Your task to perform on an android device: Add razer naga to the cart on bestbuy, then select checkout. Image 0: 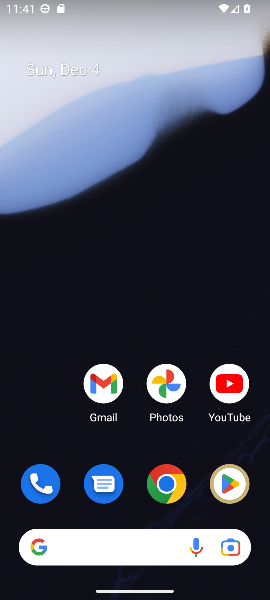
Step 0: click (166, 487)
Your task to perform on an android device: Add razer naga to the cart on bestbuy, then select checkout. Image 1: 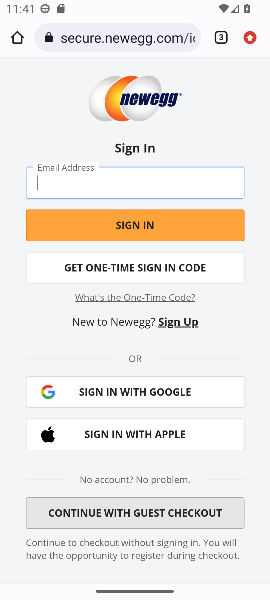
Step 1: click (118, 38)
Your task to perform on an android device: Add razer naga to the cart on bestbuy, then select checkout. Image 2: 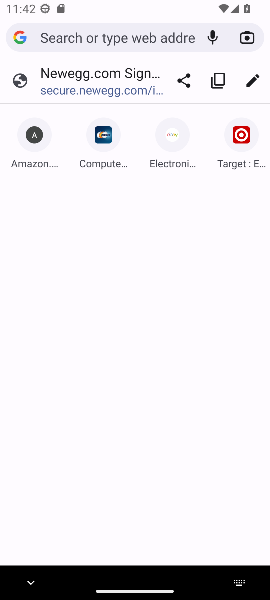
Step 2: type "bestbuy.com"
Your task to perform on an android device: Add razer naga to the cart on bestbuy, then select checkout. Image 3: 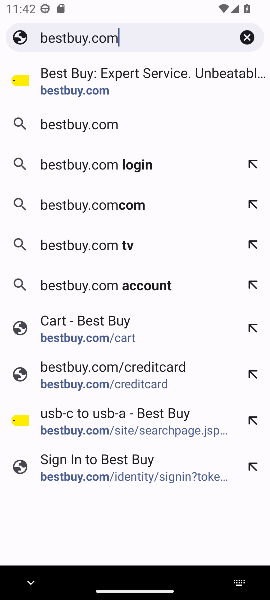
Step 3: click (60, 83)
Your task to perform on an android device: Add razer naga to the cart on bestbuy, then select checkout. Image 4: 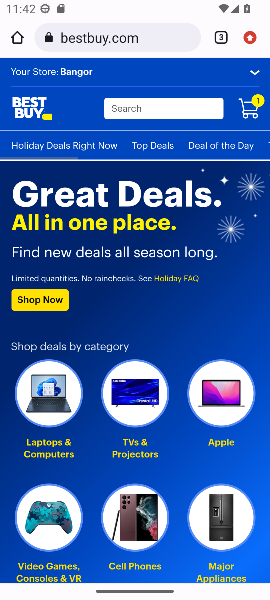
Step 4: click (128, 110)
Your task to perform on an android device: Add razer naga to the cart on bestbuy, then select checkout. Image 5: 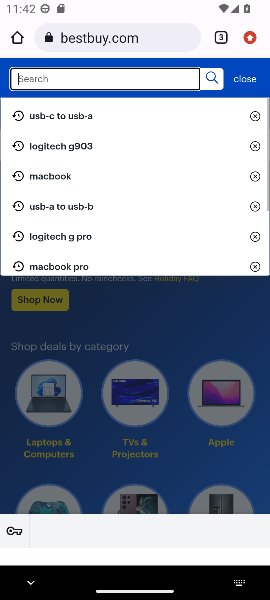
Step 5: type "razer naga"
Your task to perform on an android device: Add razer naga to the cart on bestbuy, then select checkout. Image 6: 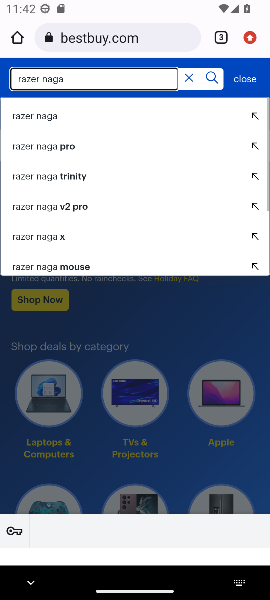
Step 6: click (35, 113)
Your task to perform on an android device: Add razer naga to the cart on bestbuy, then select checkout. Image 7: 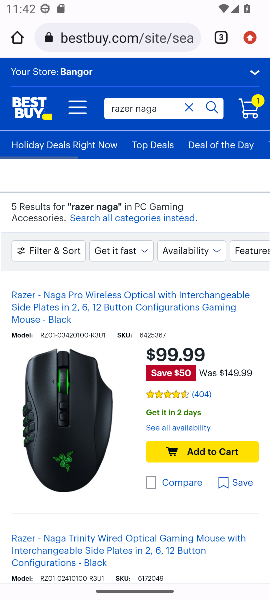
Step 7: drag from (151, 349) to (151, 247)
Your task to perform on an android device: Add razer naga to the cart on bestbuy, then select checkout. Image 8: 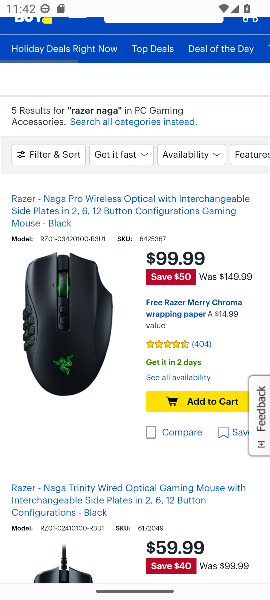
Step 8: click (188, 402)
Your task to perform on an android device: Add razer naga to the cart on bestbuy, then select checkout. Image 9: 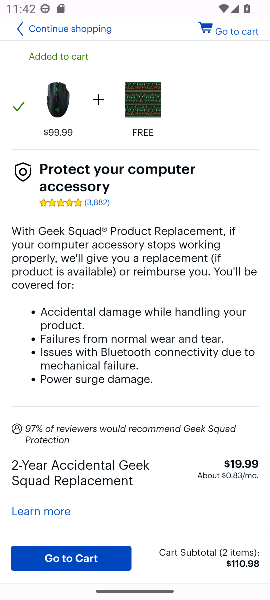
Step 9: click (228, 30)
Your task to perform on an android device: Add razer naga to the cart on bestbuy, then select checkout. Image 10: 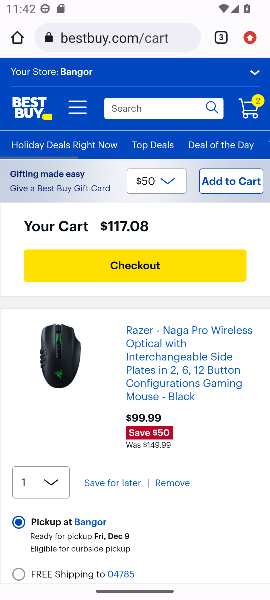
Step 10: click (153, 266)
Your task to perform on an android device: Add razer naga to the cart on bestbuy, then select checkout. Image 11: 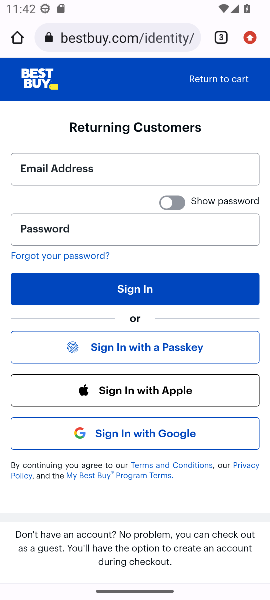
Step 11: task complete